Your task to perform on an android device: Set the phone to "Do not disturb". Image 0: 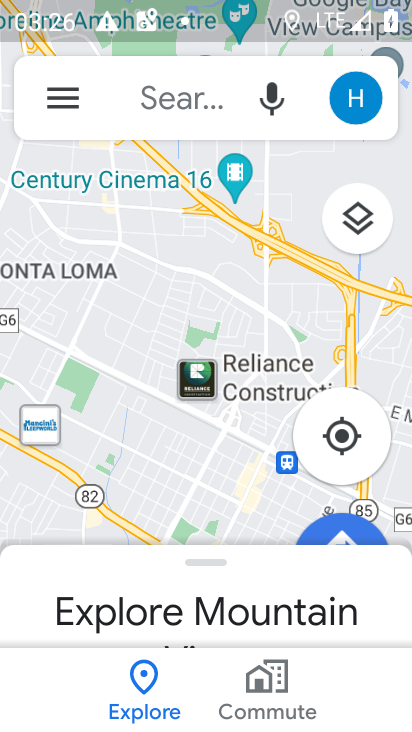
Step 0: press home button
Your task to perform on an android device: Set the phone to "Do not disturb". Image 1: 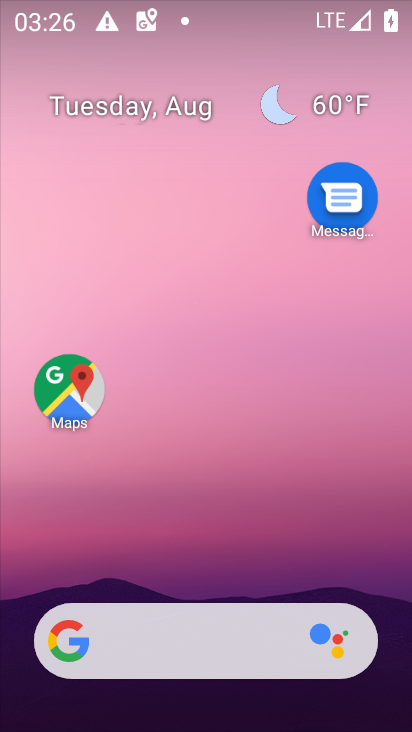
Step 1: drag from (233, 603) to (129, 118)
Your task to perform on an android device: Set the phone to "Do not disturb". Image 2: 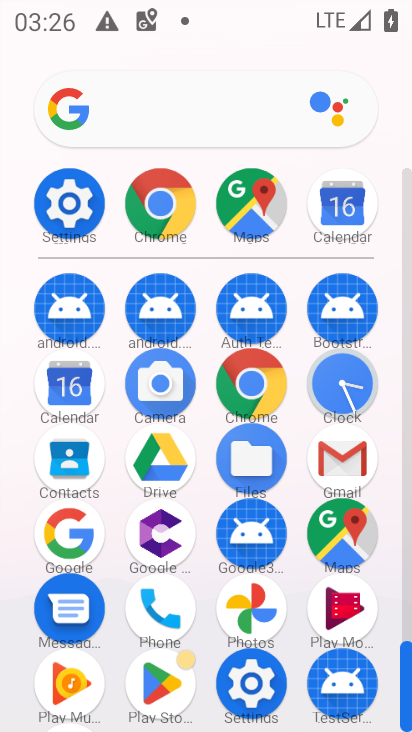
Step 2: click (84, 209)
Your task to perform on an android device: Set the phone to "Do not disturb". Image 3: 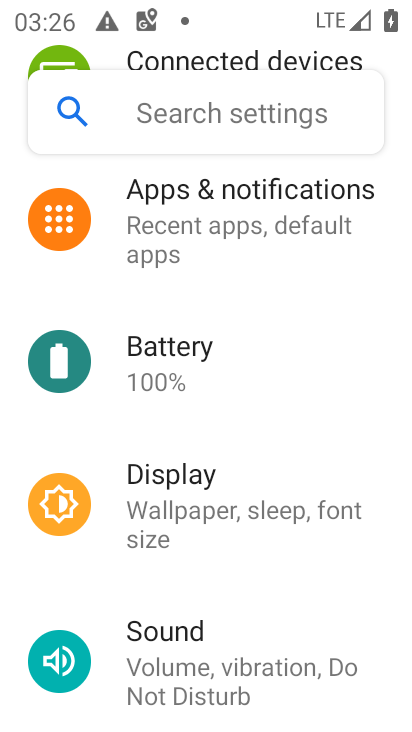
Step 3: click (208, 309)
Your task to perform on an android device: Set the phone to "Do not disturb". Image 4: 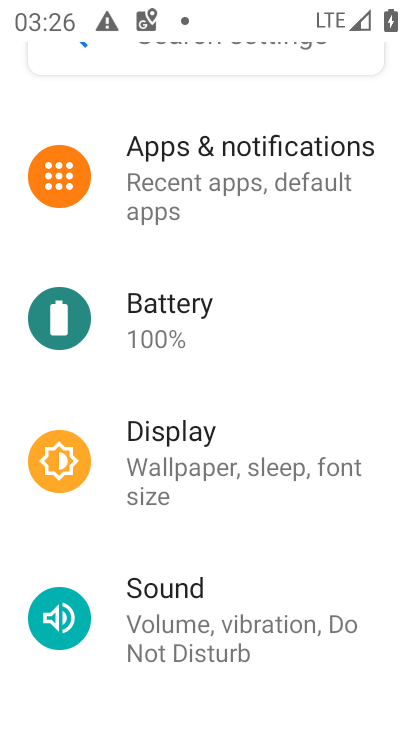
Step 4: click (217, 601)
Your task to perform on an android device: Set the phone to "Do not disturb". Image 5: 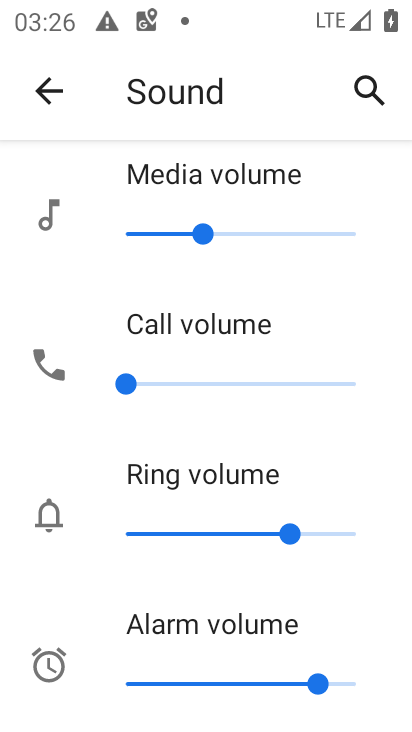
Step 5: drag from (231, 613) to (71, 74)
Your task to perform on an android device: Set the phone to "Do not disturb". Image 6: 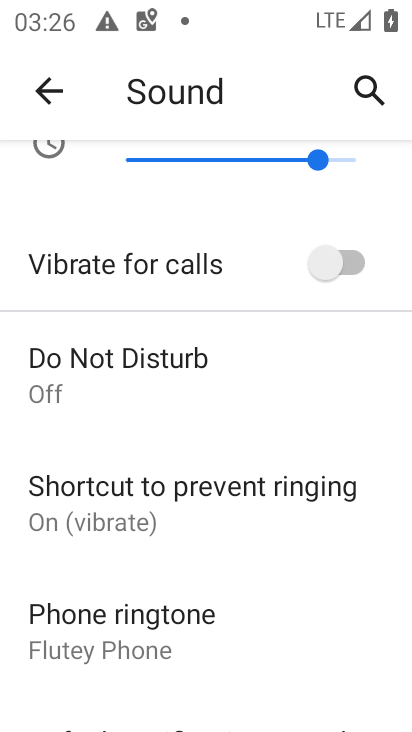
Step 6: click (151, 376)
Your task to perform on an android device: Set the phone to "Do not disturb". Image 7: 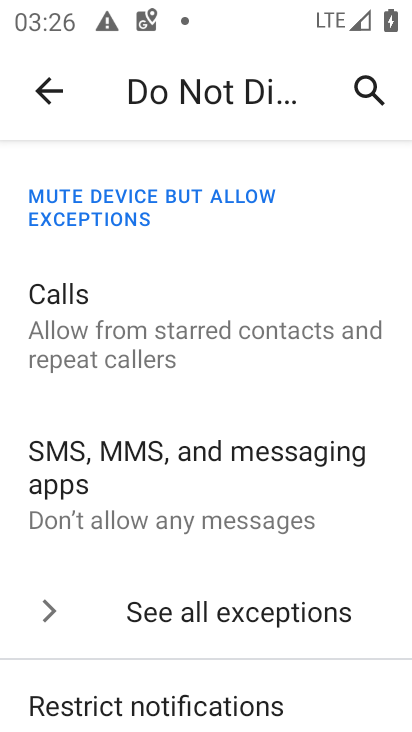
Step 7: task complete